Your task to perform on an android device: check data usage Image 0: 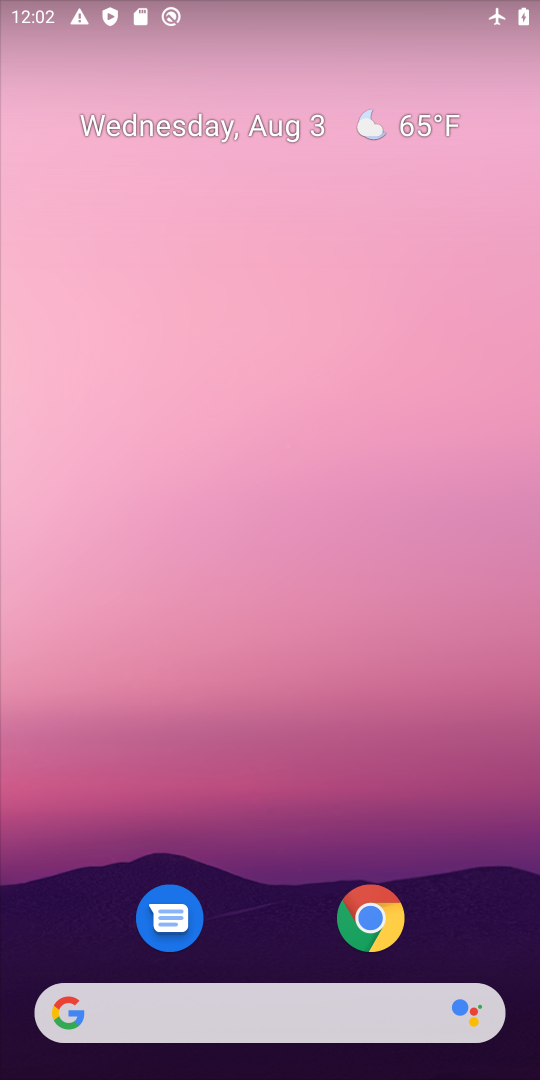
Step 0: drag from (298, 797) to (335, 58)
Your task to perform on an android device: check data usage Image 1: 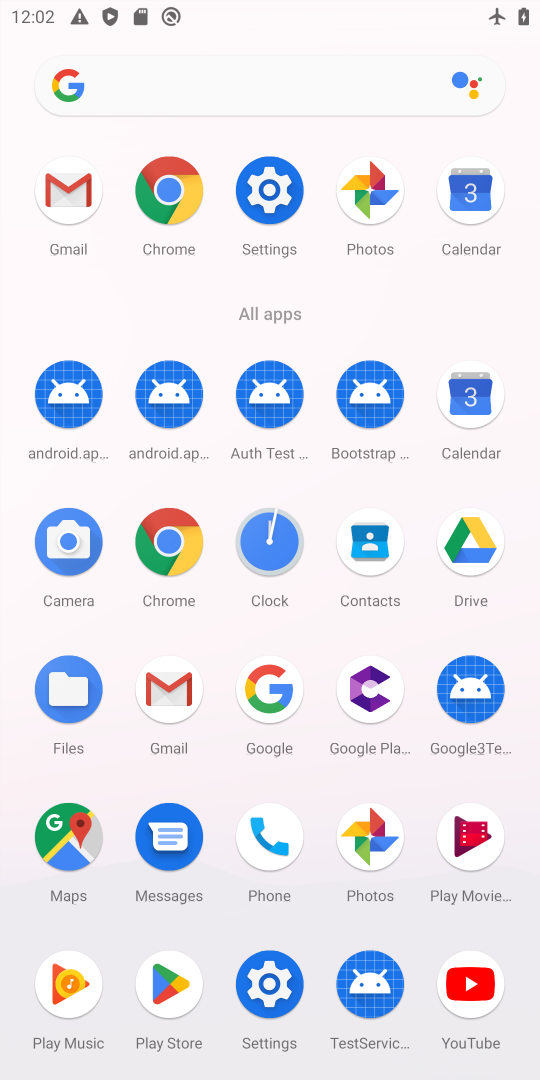
Step 1: click (266, 187)
Your task to perform on an android device: check data usage Image 2: 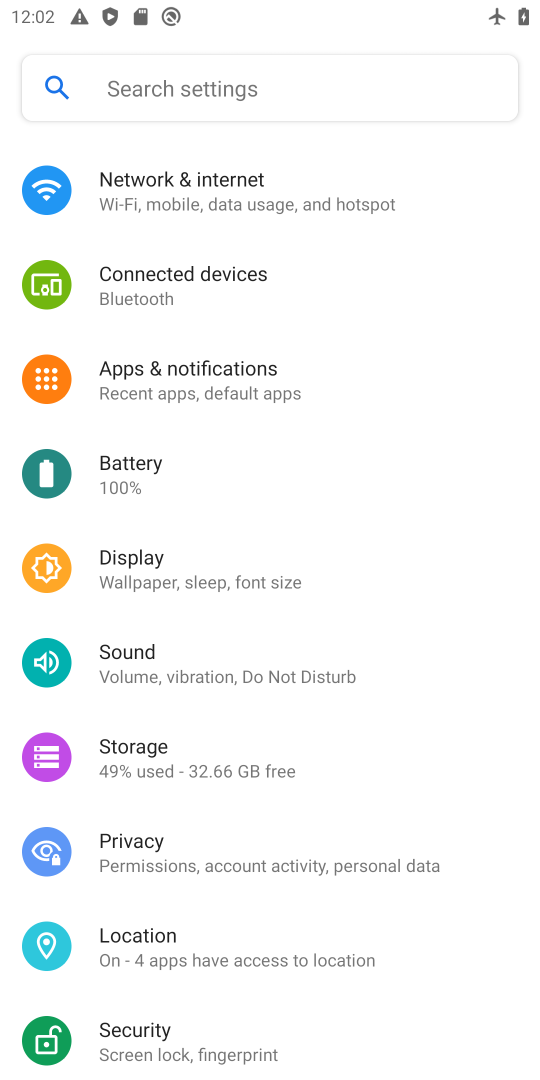
Step 2: click (266, 191)
Your task to perform on an android device: check data usage Image 3: 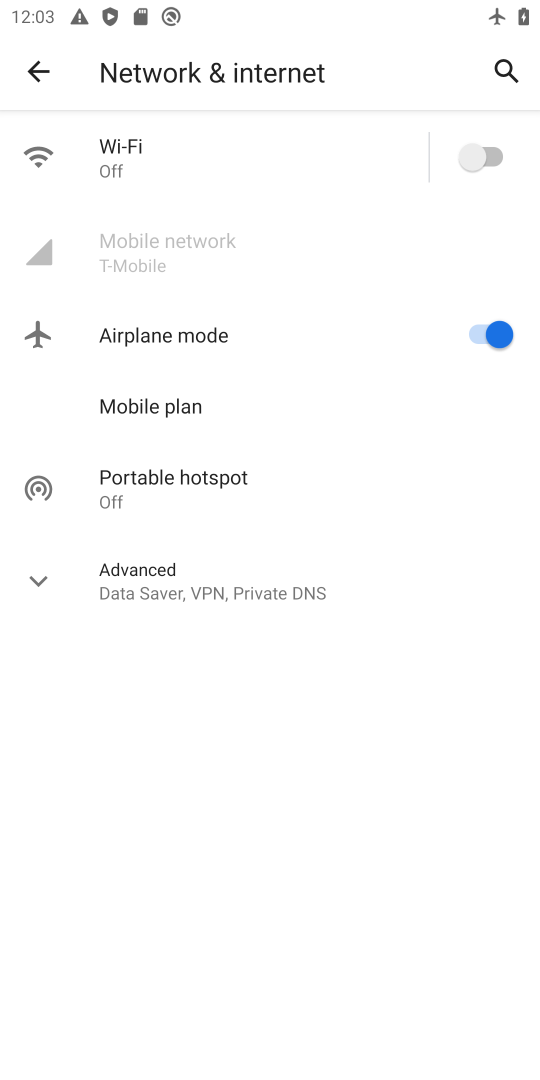
Step 3: click (478, 330)
Your task to perform on an android device: check data usage Image 4: 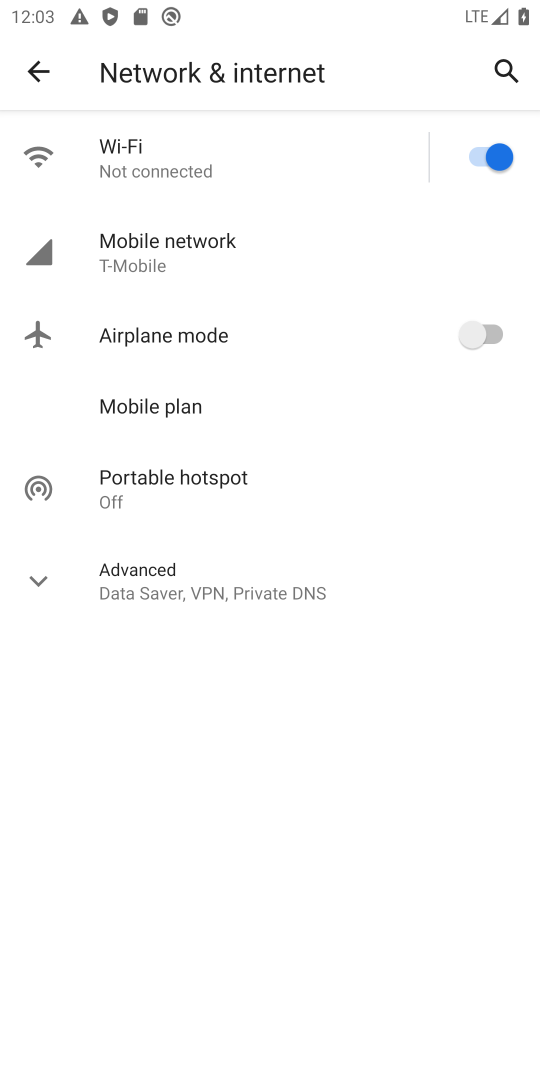
Step 4: click (251, 261)
Your task to perform on an android device: check data usage Image 5: 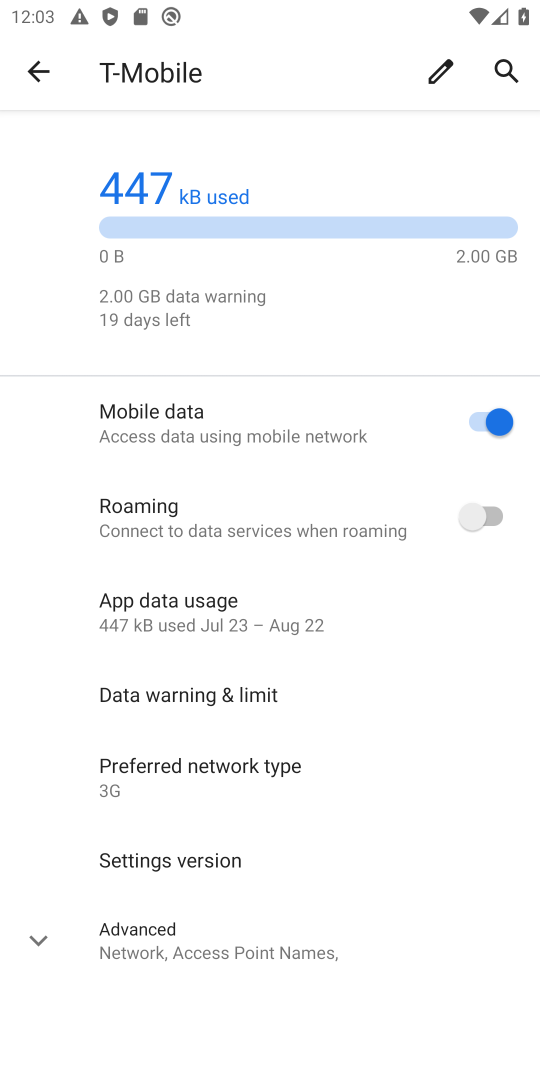
Step 5: task complete